Your task to perform on an android device: change the upload size in google photos Image 0: 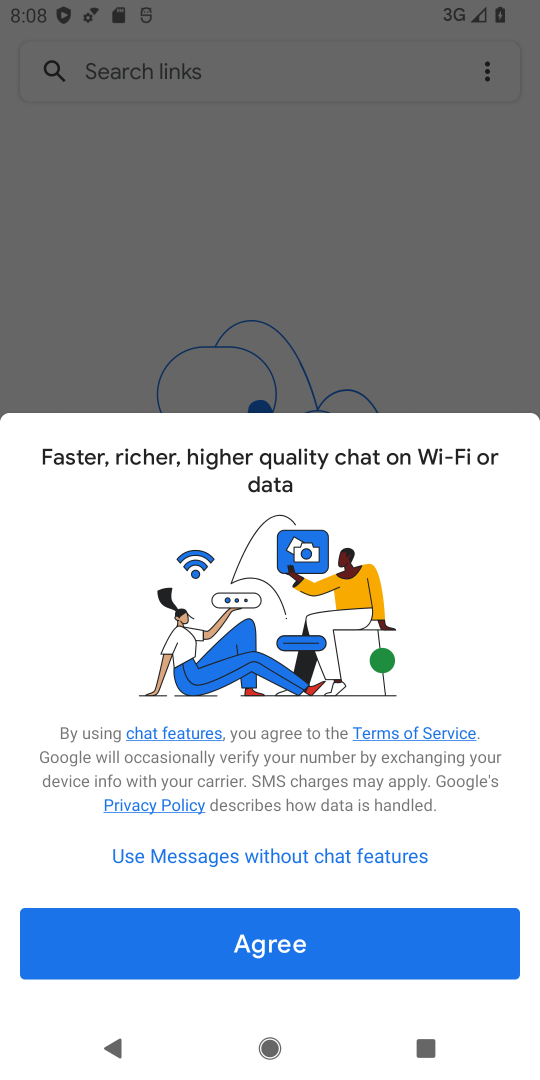
Step 0: press back button
Your task to perform on an android device: change the upload size in google photos Image 1: 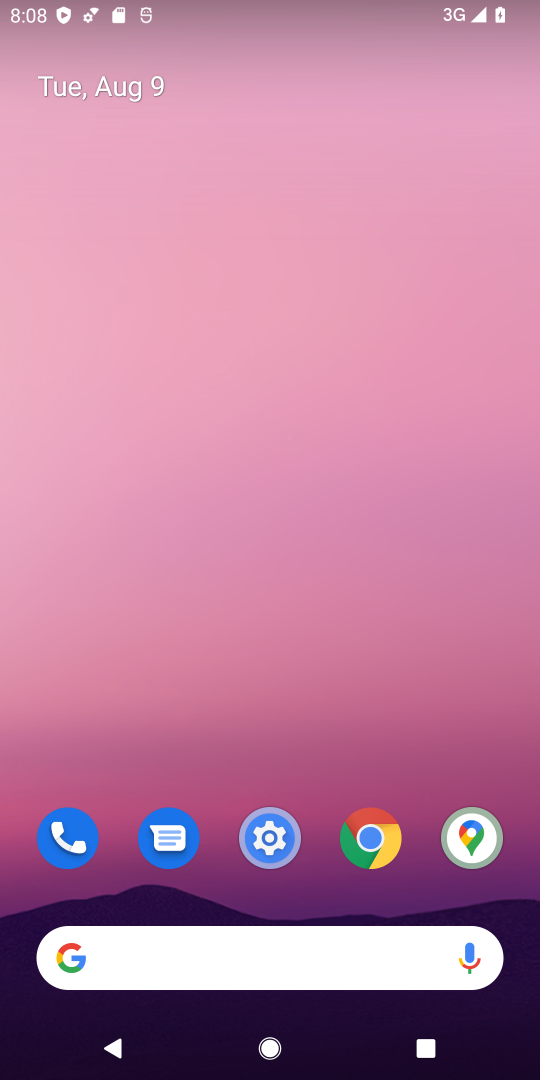
Step 1: drag from (263, 853) to (154, 153)
Your task to perform on an android device: change the upload size in google photos Image 2: 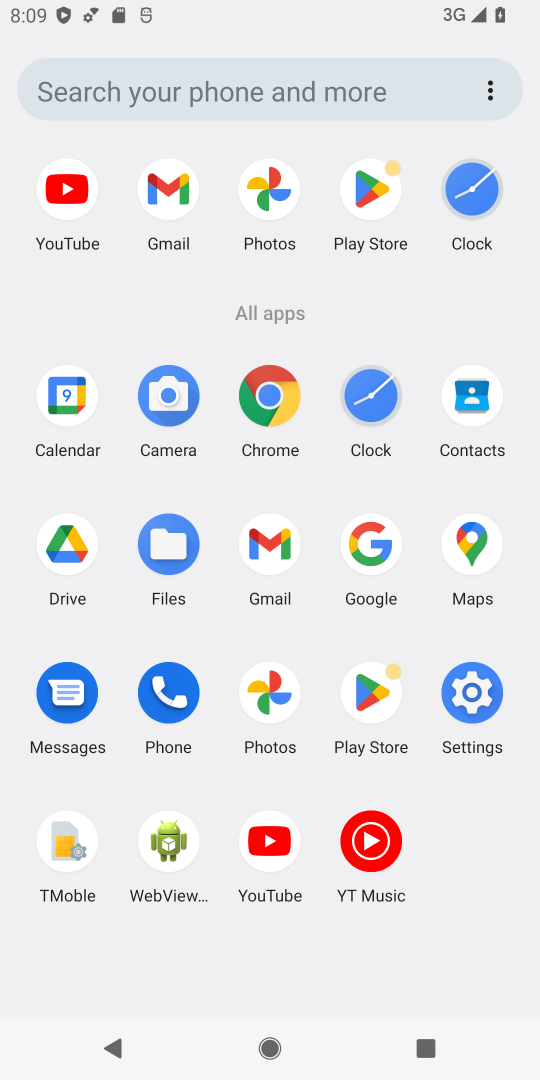
Step 2: click (268, 691)
Your task to perform on an android device: change the upload size in google photos Image 3: 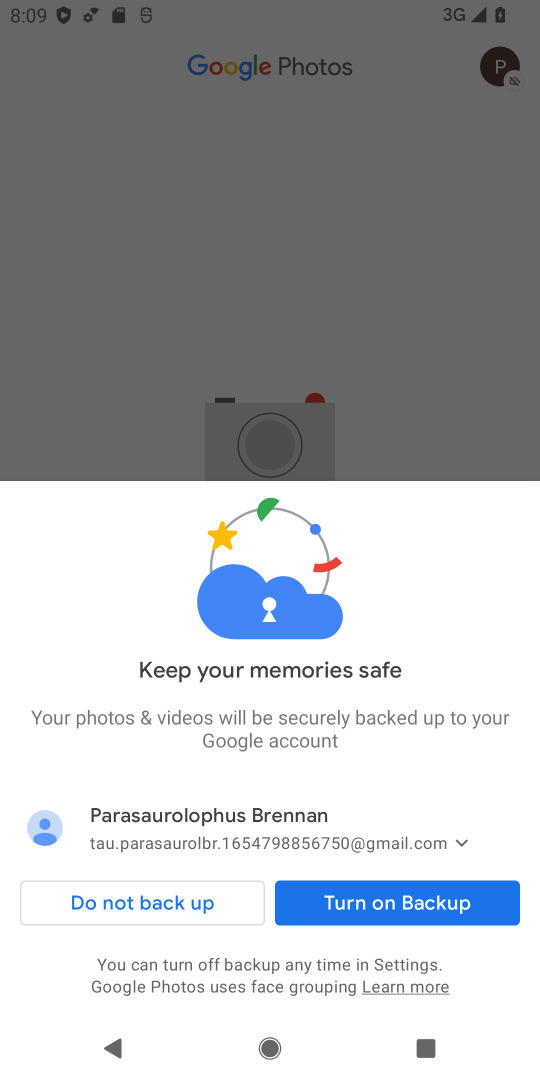
Step 3: click (381, 904)
Your task to perform on an android device: change the upload size in google photos Image 4: 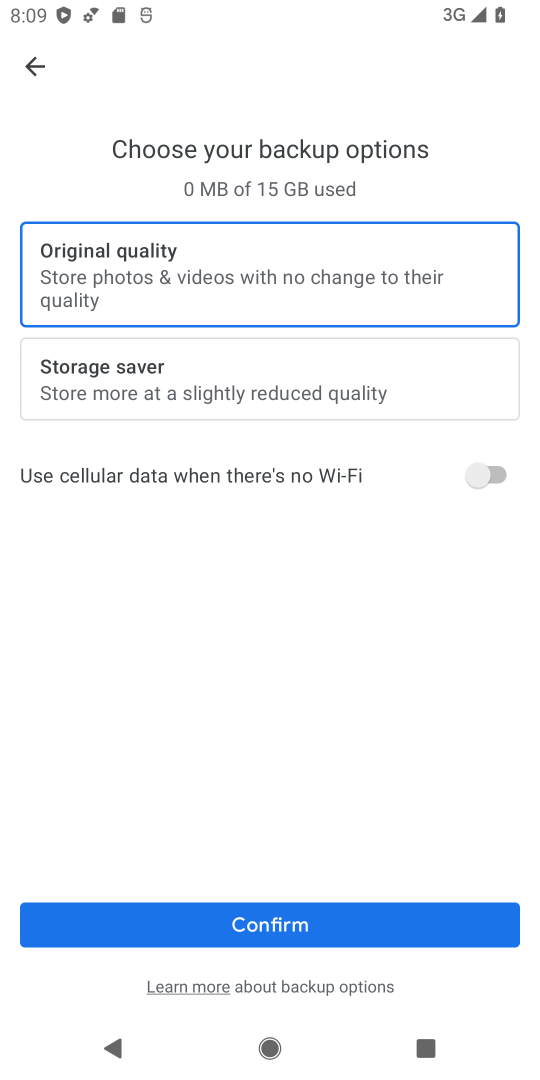
Step 4: click (273, 922)
Your task to perform on an android device: change the upload size in google photos Image 5: 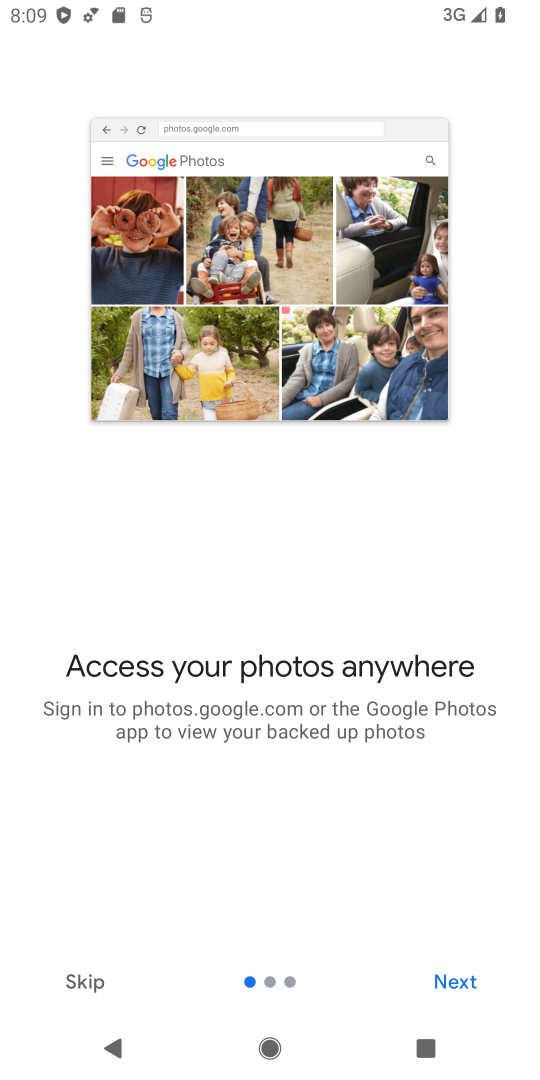
Step 5: click (95, 975)
Your task to perform on an android device: change the upload size in google photos Image 6: 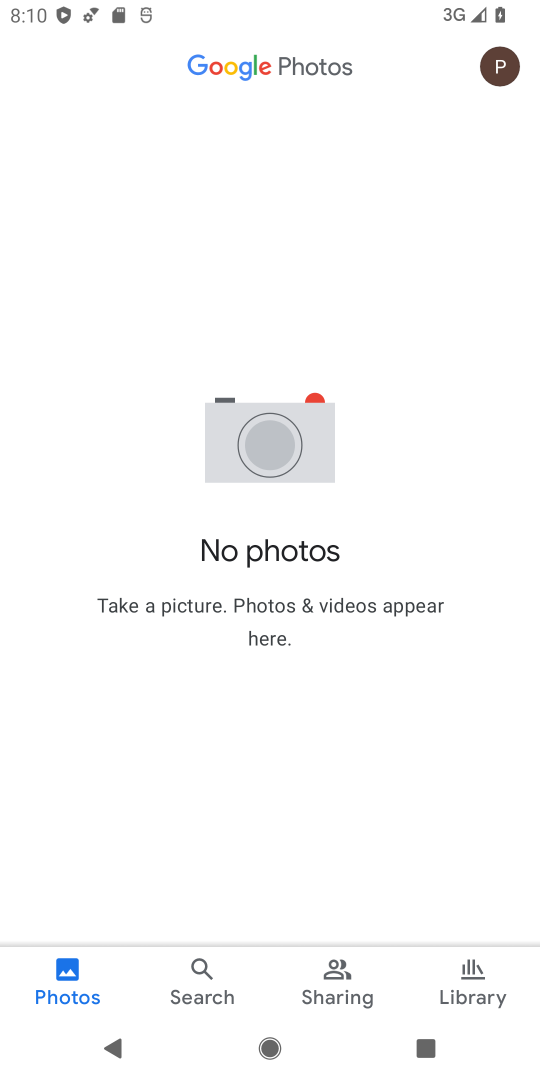
Step 6: click (516, 60)
Your task to perform on an android device: change the upload size in google photos Image 7: 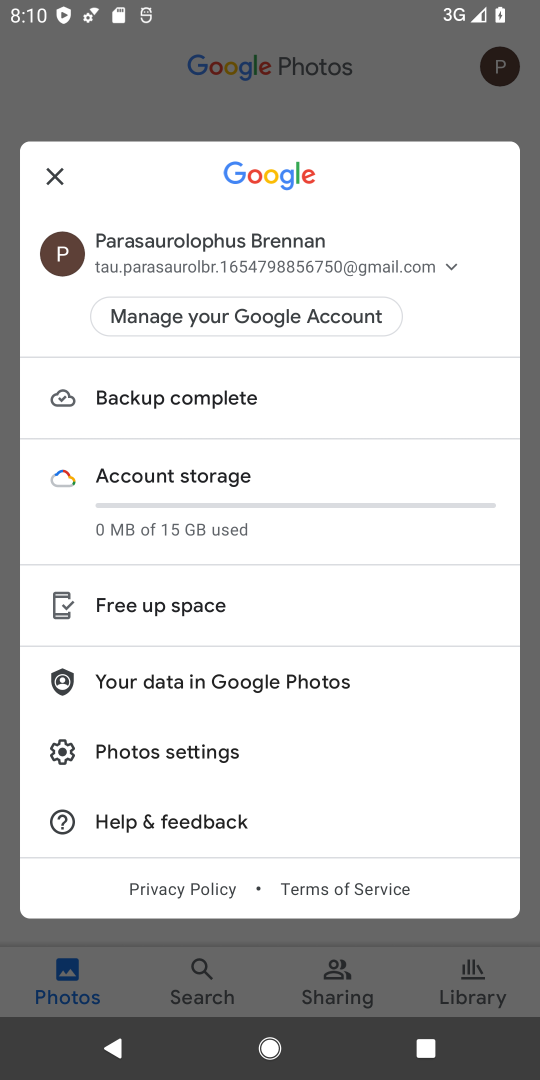
Step 7: click (187, 744)
Your task to perform on an android device: change the upload size in google photos Image 8: 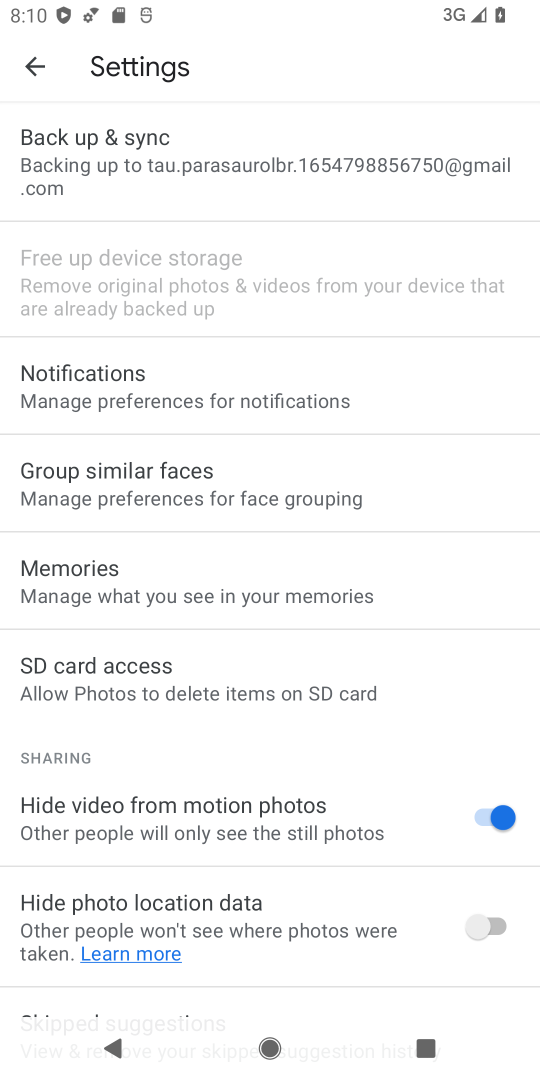
Step 8: click (155, 152)
Your task to perform on an android device: change the upload size in google photos Image 9: 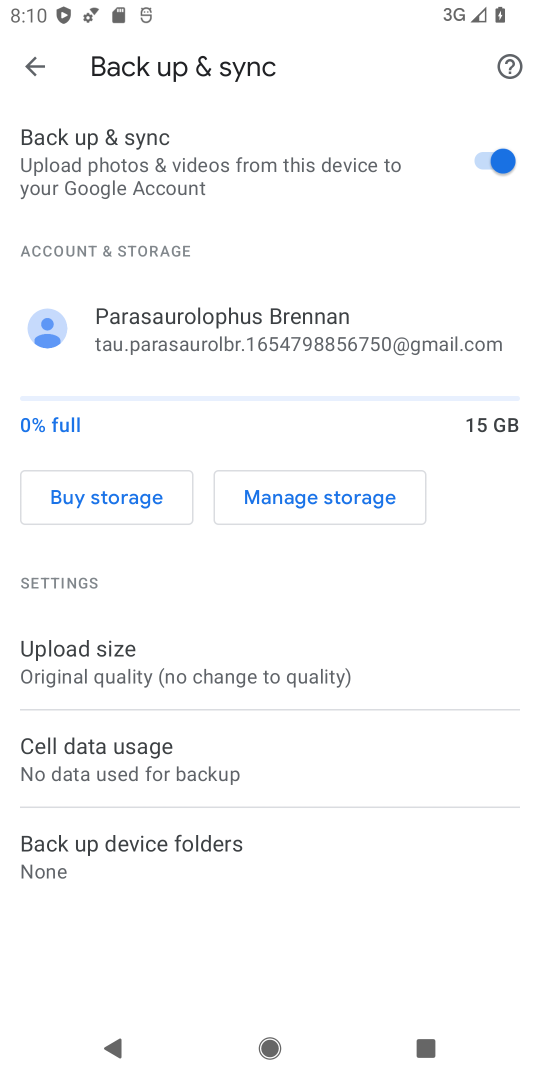
Step 9: click (141, 661)
Your task to perform on an android device: change the upload size in google photos Image 10: 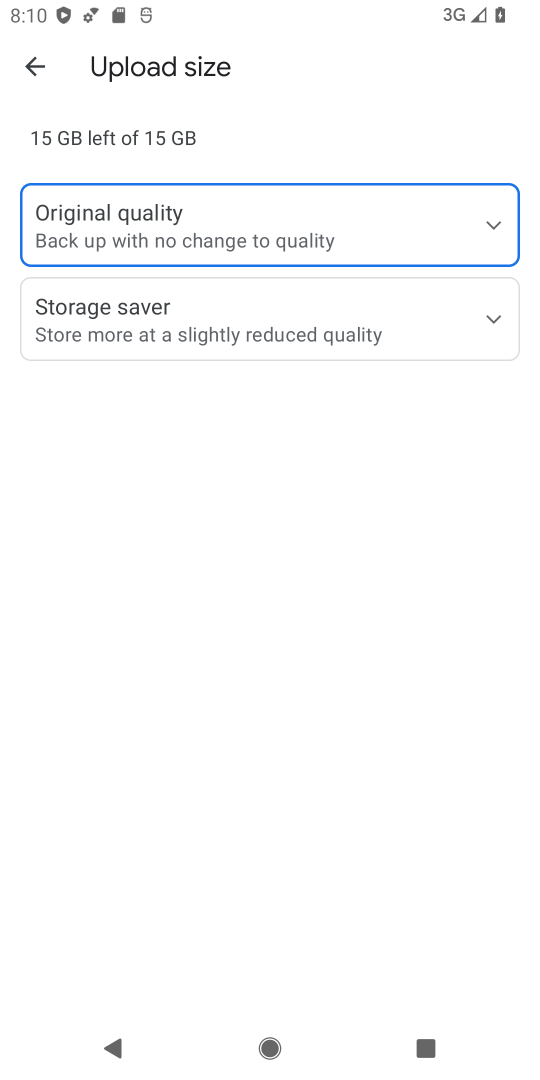
Step 10: click (249, 329)
Your task to perform on an android device: change the upload size in google photos Image 11: 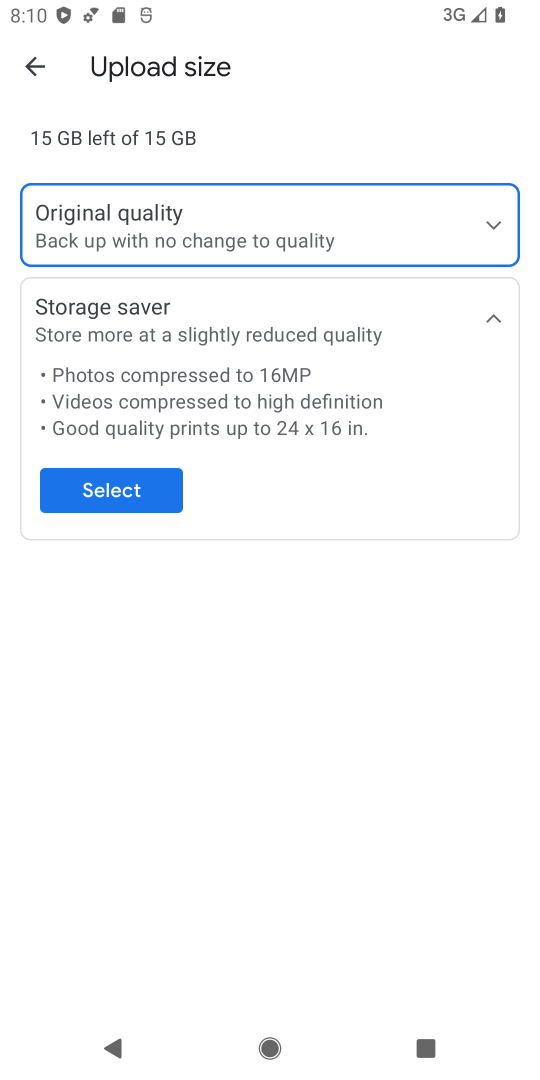
Step 11: click (145, 490)
Your task to perform on an android device: change the upload size in google photos Image 12: 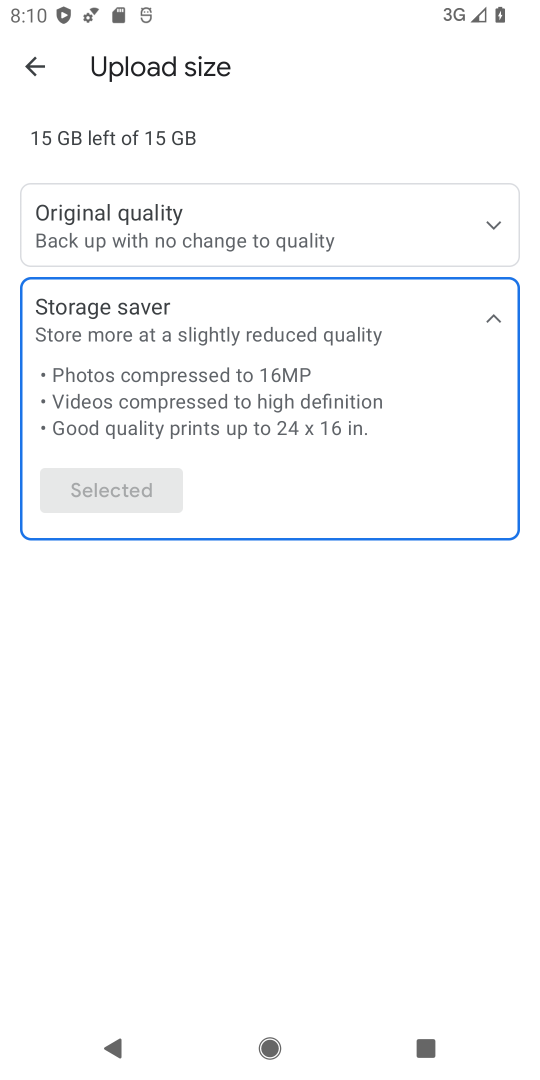
Step 12: task complete